Your task to perform on an android device: See recent photos Image 0: 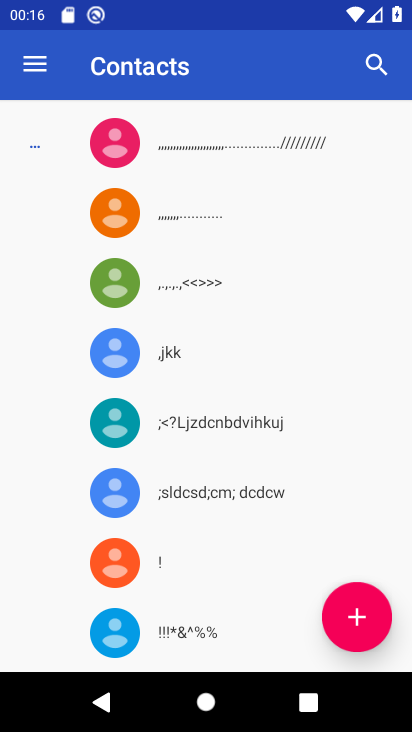
Step 0: press back button
Your task to perform on an android device: See recent photos Image 1: 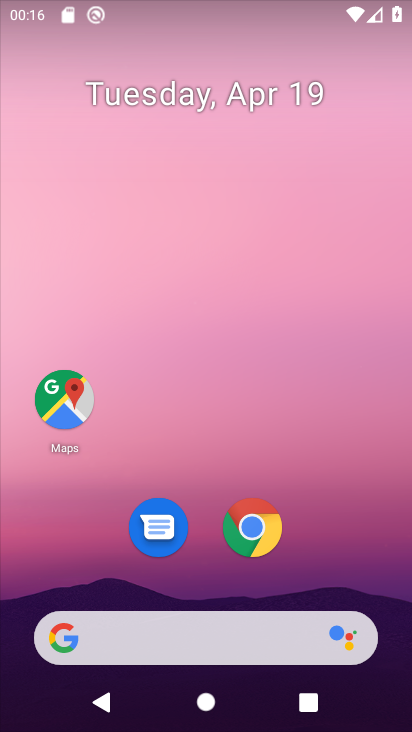
Step 1: drag from (323, 566) to (248, 73)
Your task to perform on an android device: See recent photos Image 2: 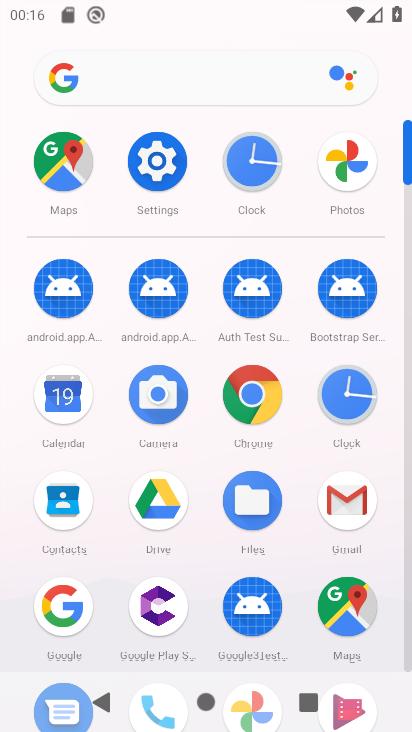
Step 2: click (336, 162)
Your task to perform on an android device: See recent photos Image 3: 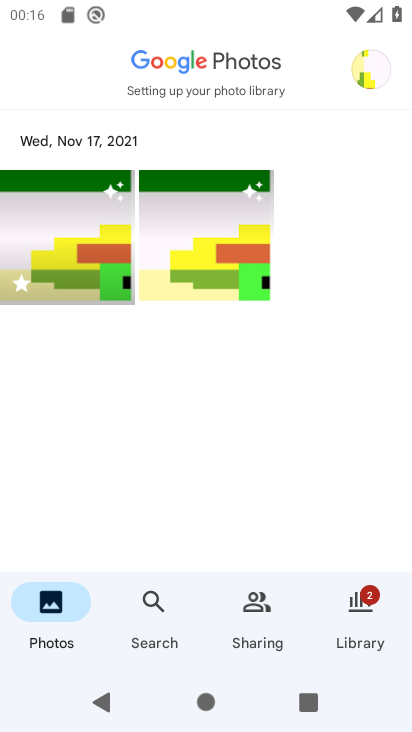
Step 3: task complete